Your task to perform on an android device: change the clock display to digital Image 0: 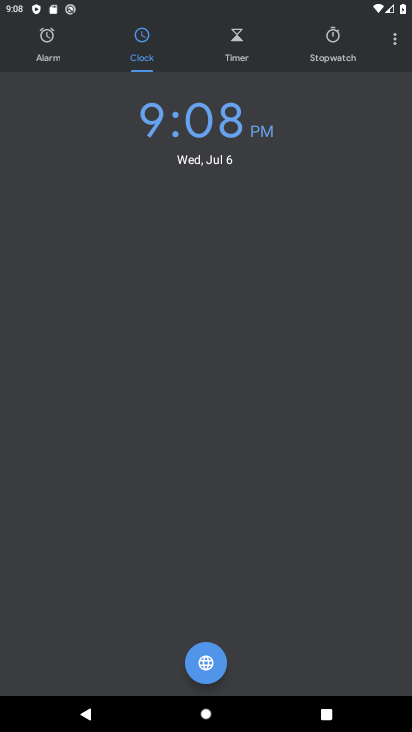
Step 0: press home button
Your task to perform on an android device: change the clock display to digital Image 1: 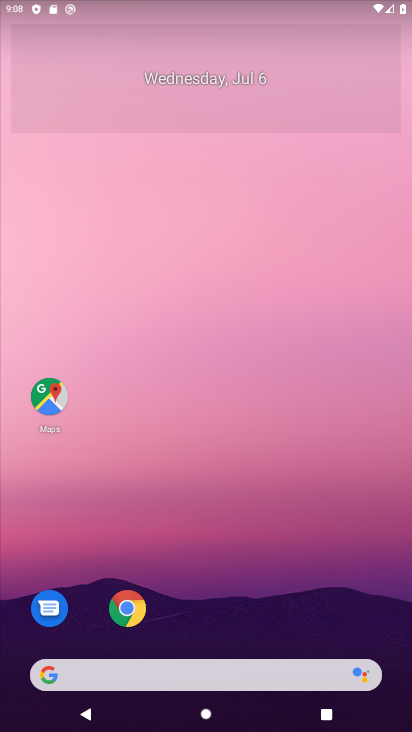
Step 1: drag from (192, 676) to (244, 94)
Your task to perform on an android device: change the clock display to digital Image 2: 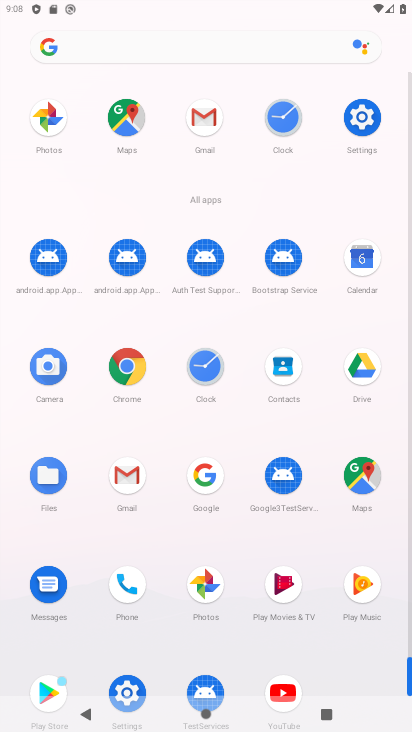
Step 2: click (208, 384)
Your task to perform on an android device: change the clock display to digital Image 3: 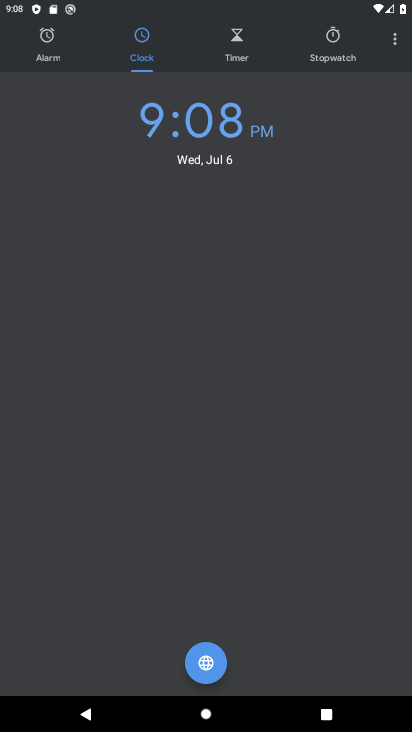
Step 3: click (389, 40)
Your task to perform on an android device: change the clock display to digital Image 4: 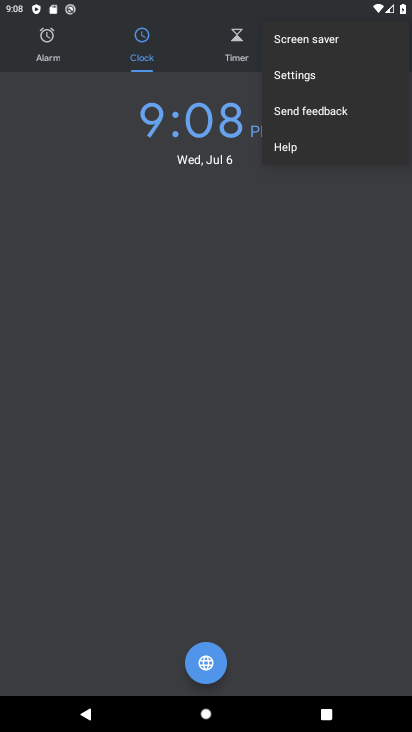
Step 4: click (332, 70)
Your task to perform on an android device: change the clock display to digital Image 5: 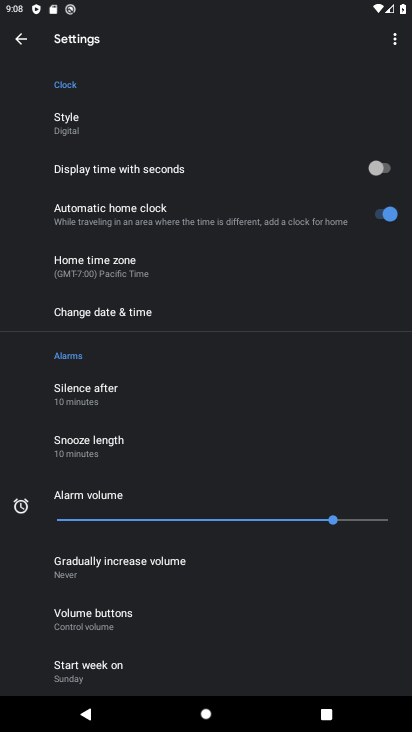
Step 5: click (115, 132)
Your task to perform on an android device: change the clock display to digital Image 6: 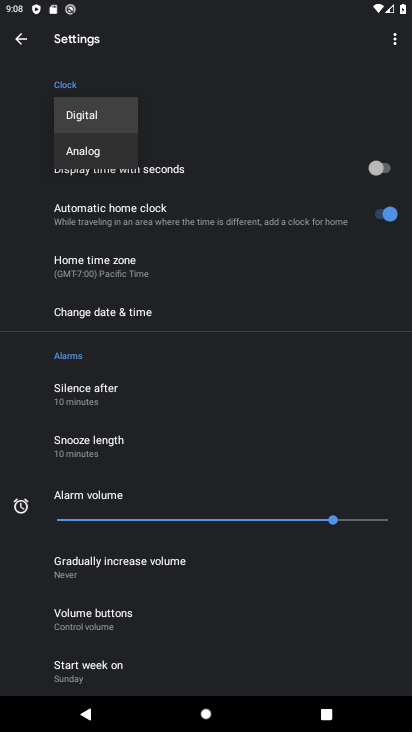
Step 6: click (96, 120)
Your task to perform on an android device: change the clock display to digital Image 7: 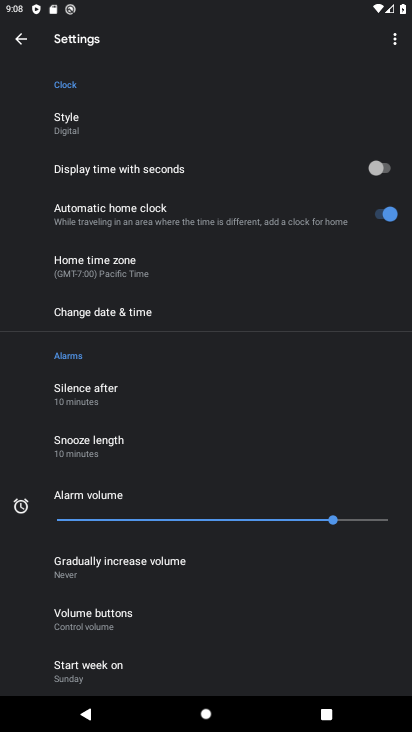
Step 7: task complete